Your task to perform on an android device: Open Google Maps and go to "Timeline" Image 0: 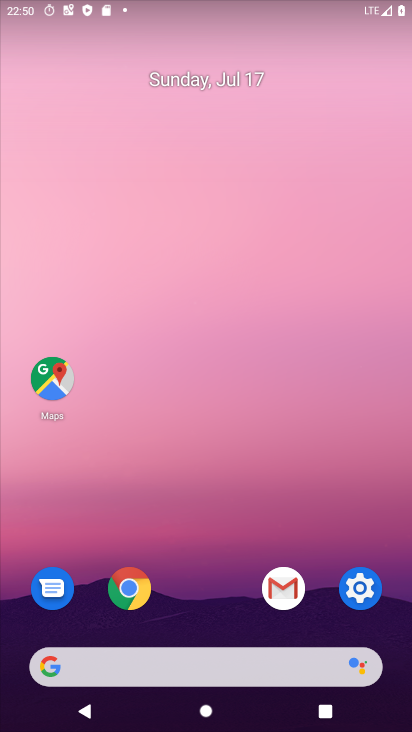
Step 0: click (52, 395)
Your task to perform on an android device: Open Google Maps and go to "Timeline" Image 1: 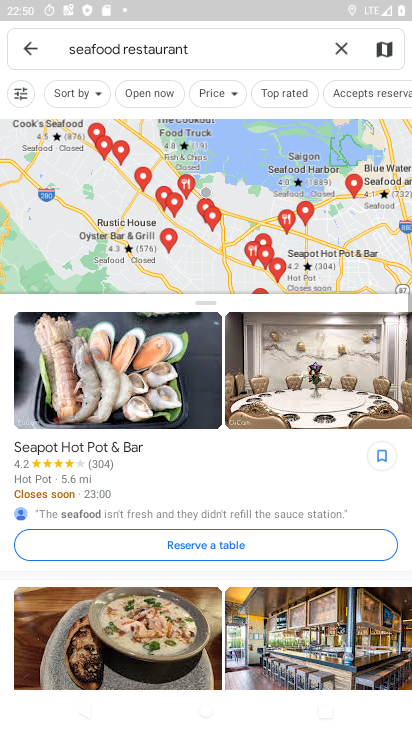
Step 1: click (29, 48)
Your task to perform on an android device: Open Google Maps and go to "Timeline" Image 2: 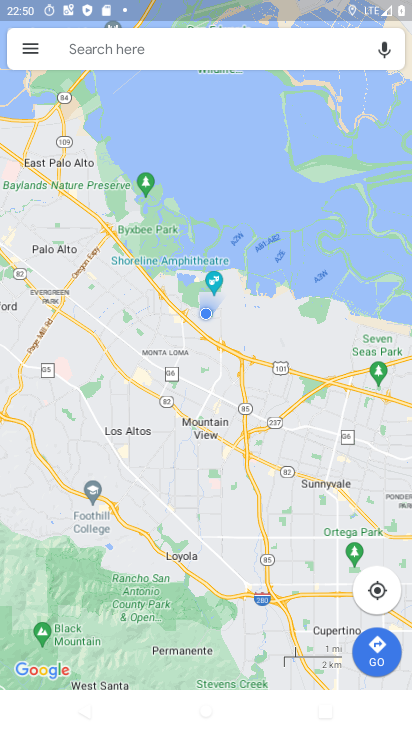
Step 2: click (29, 48)
Your task to perform on an android device: Open Google Maps and go to "Timeline" Image 3: 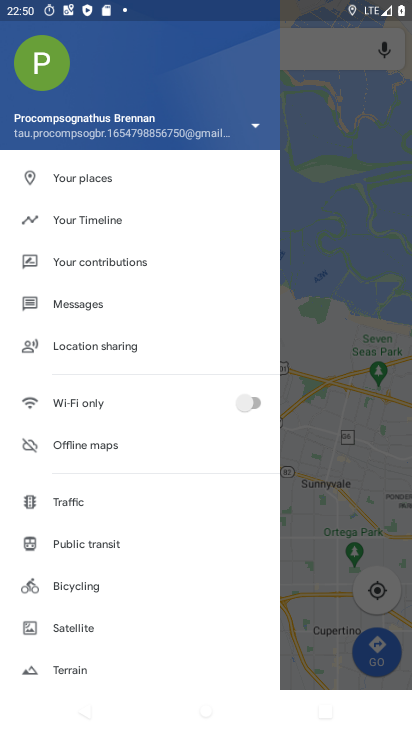
Step 3: click (125, 221)
Your task to perform on an android device: Open Google Maps and go to "Timeline" Image 4: 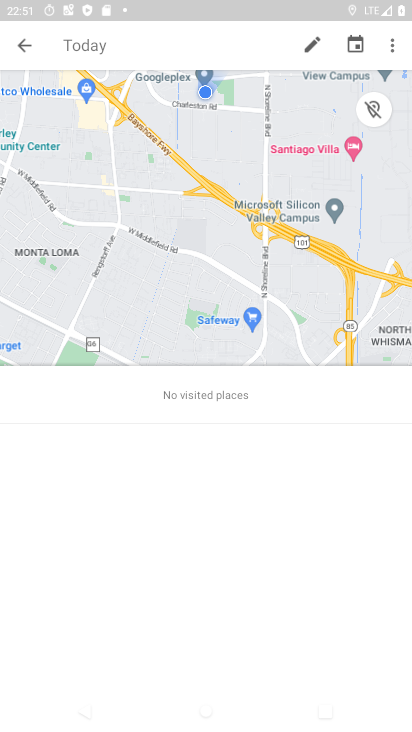
Step 4: task complete